Your task to perform on an android device: toggle wifi Image 0: 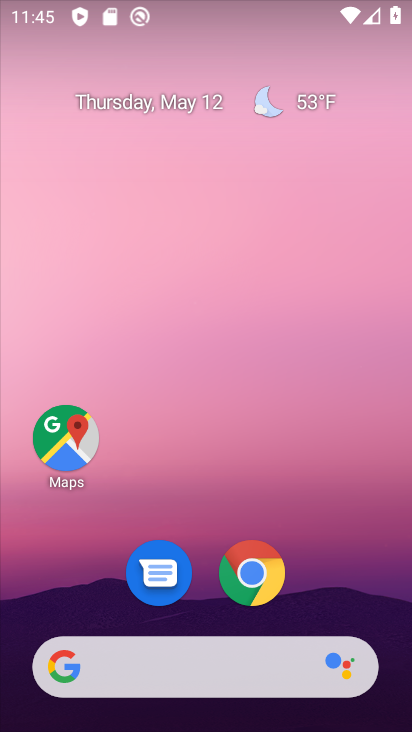
Step 0: drag from (177, 647) to (375, 180)
Your task to perform on an android device: toggle wifi Image 1: 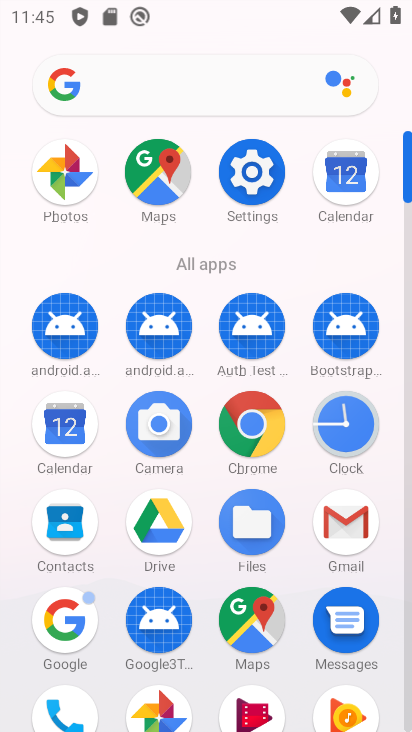
Step 1: drag from (151, 685) to (222, 444)
Your task to perform on an android device: toggle wifi Image 2: 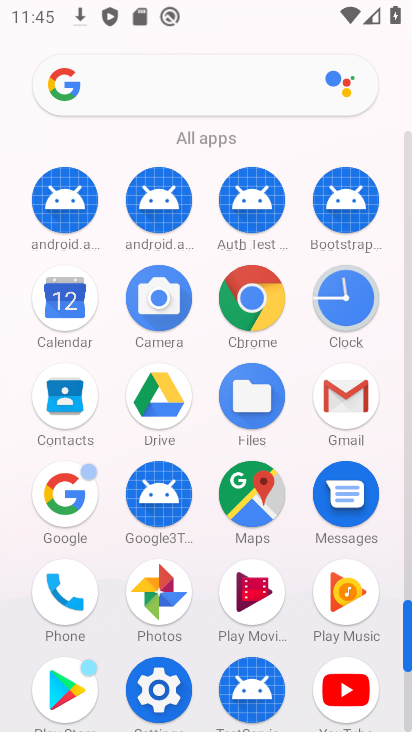
Step 2: click (146, 695)
Your task to perform on an android device: toggle wifi Image 3: 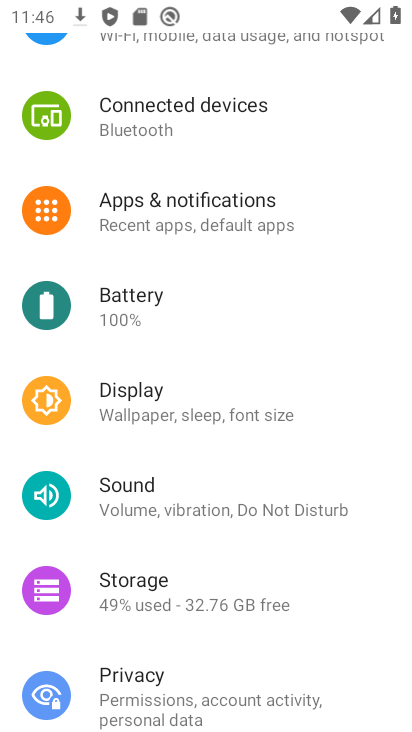
Step 3: drag from (264, 222) to (252, 581)
Your task to perform on an android device: toggle wifi Image 4: 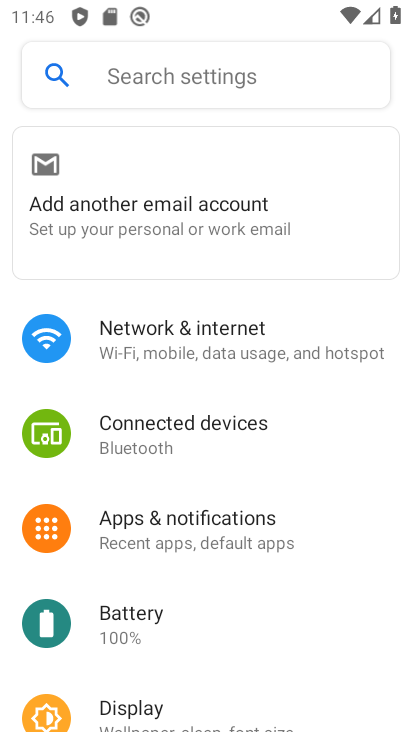
Step 4: click (216, 348)
Your task to perform on an android device: toggle wifi Image 5: 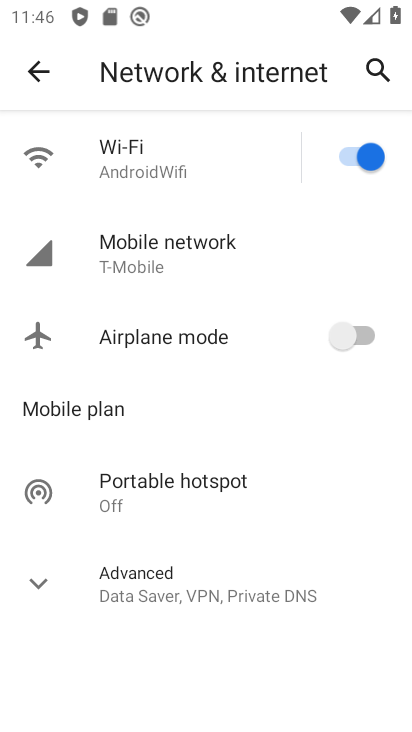
Step 5: click (358, 160)
Your task to perform on an android device: toggle wifi Image 6: 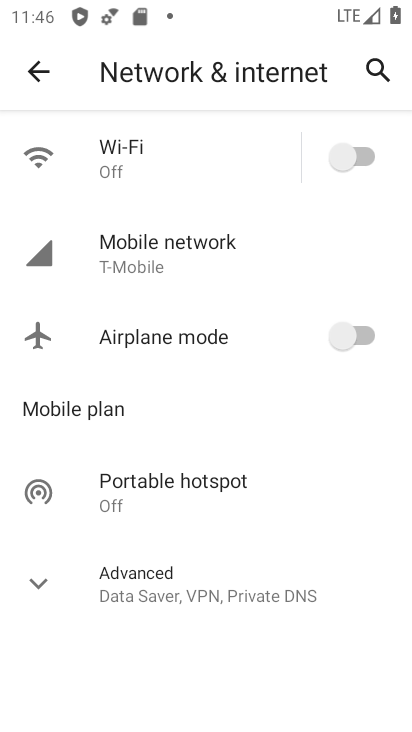
Step 6: task complete